Your task to perform on an android device: open wifi settings Image 0: 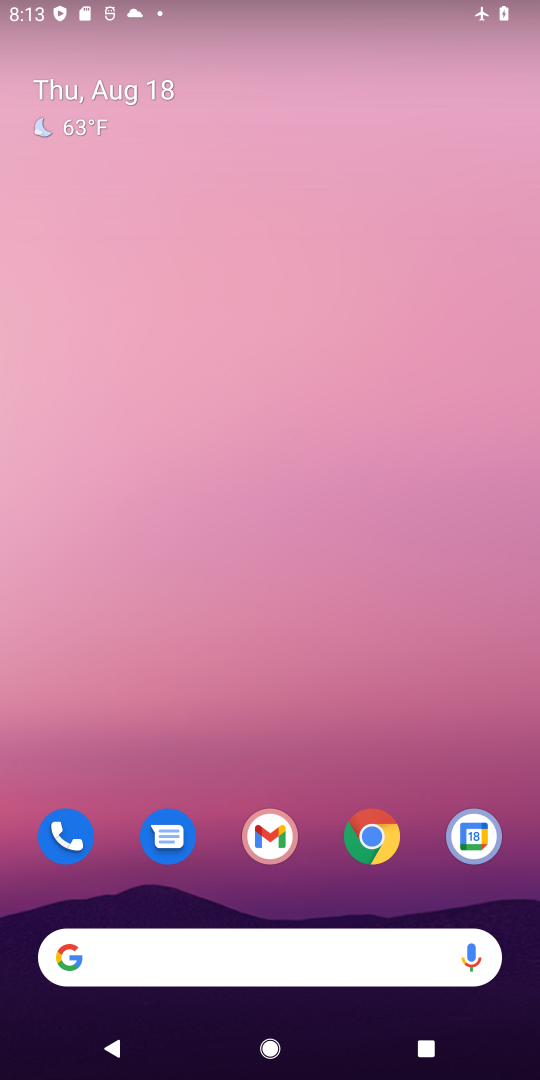
Step 0: drag from (359, 686) to (321, 0)
Your task to perform on an android device: open wifi settings Image 1: 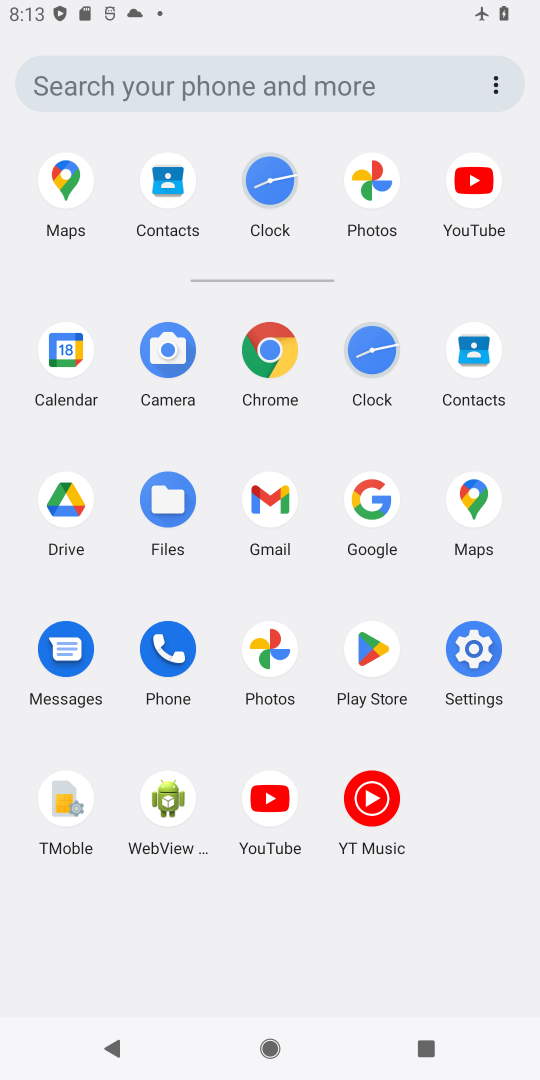
Step 1: click (483, 647)
Your task to perform on an android device: open wifi settings Image 2: 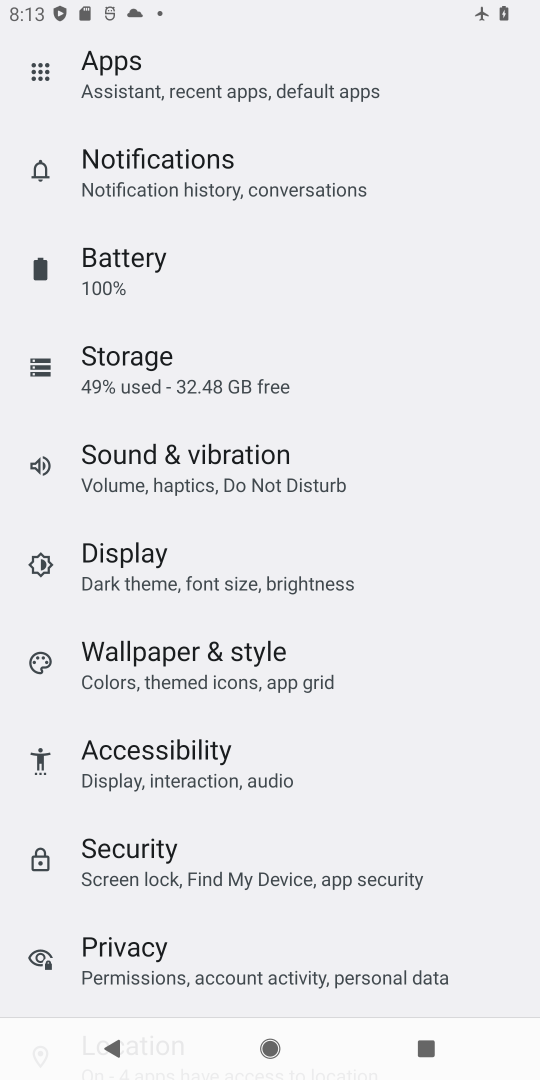
Step 2: drag from (221, 211) to (299, 835)
Your task to perform on an android device: open wifi settings Image 3: 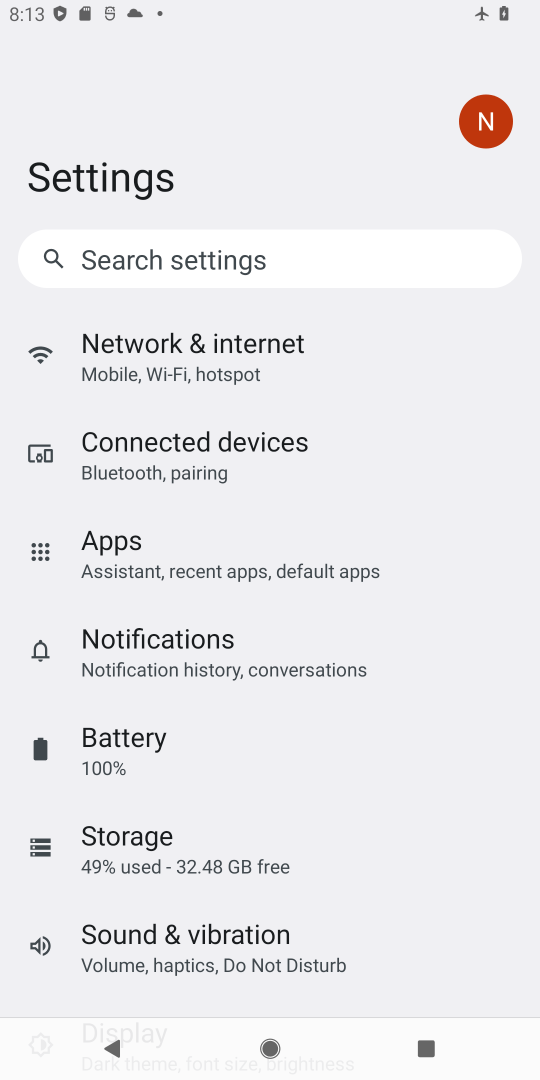
Step 3: click (296, 380)
Your task to perform on an android device: open wifi settings Image 4: 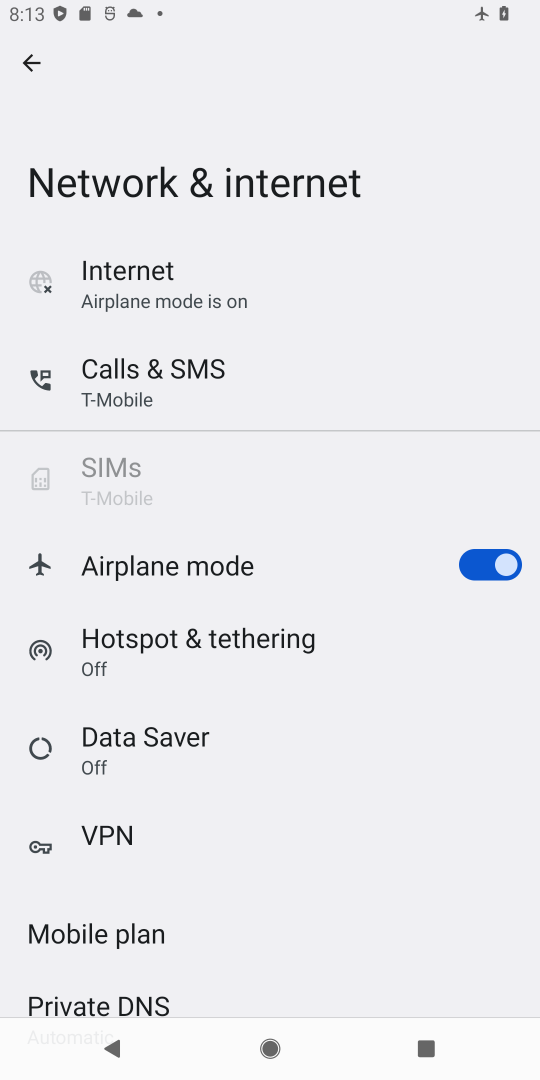
Step 4: click (159, 281)
Your task to perform on an android device: open wifi settings Image 5: 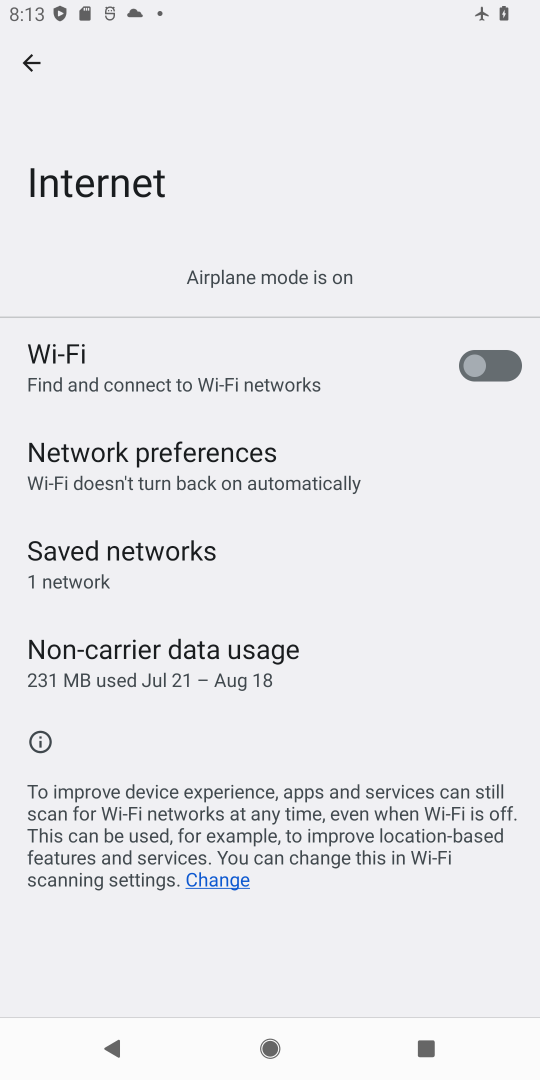
Step 5: click (146, 374)
Your task to perform on an android device: open wifi settings Image 6: 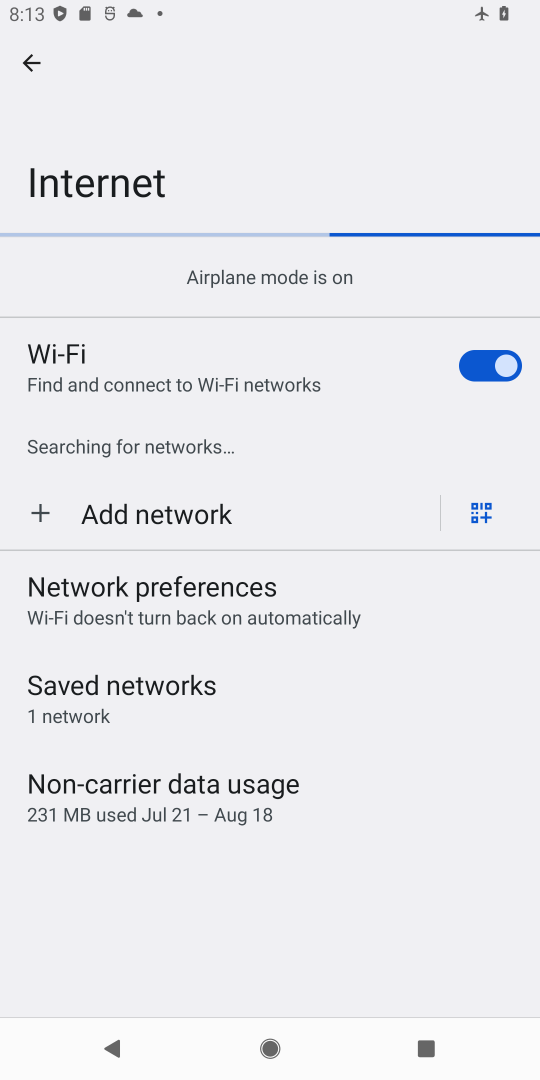
Step 6: click (146, 374)
Your task to perform on an android device: open wifi settings Image 7: 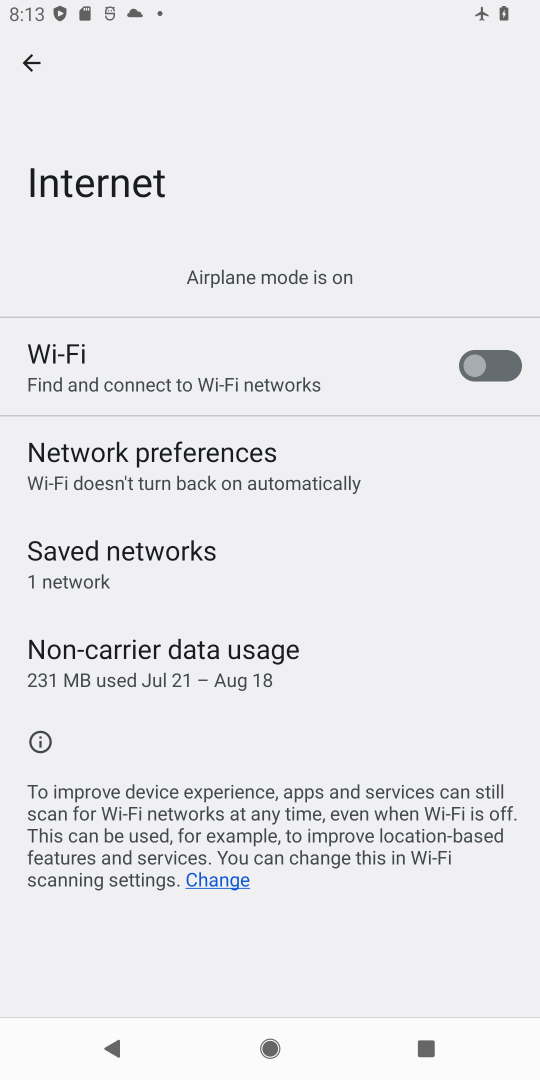
Step 7: click (146, 374)
Your task to perform on an android device: open wifi settings Image 8: 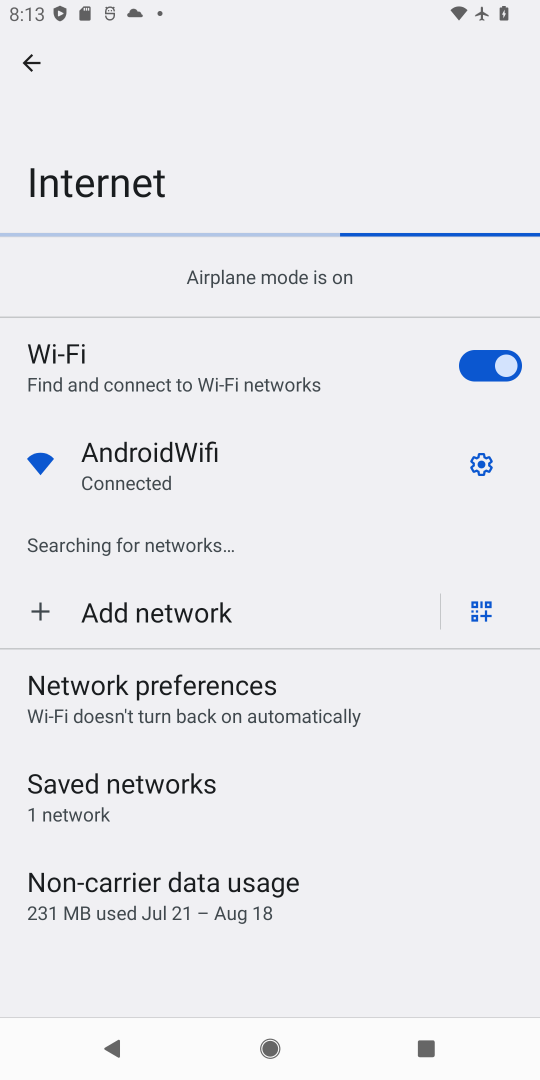
Step 8: click (476, 418)
Your task to perform on an android device: open wifi settings Image 9: 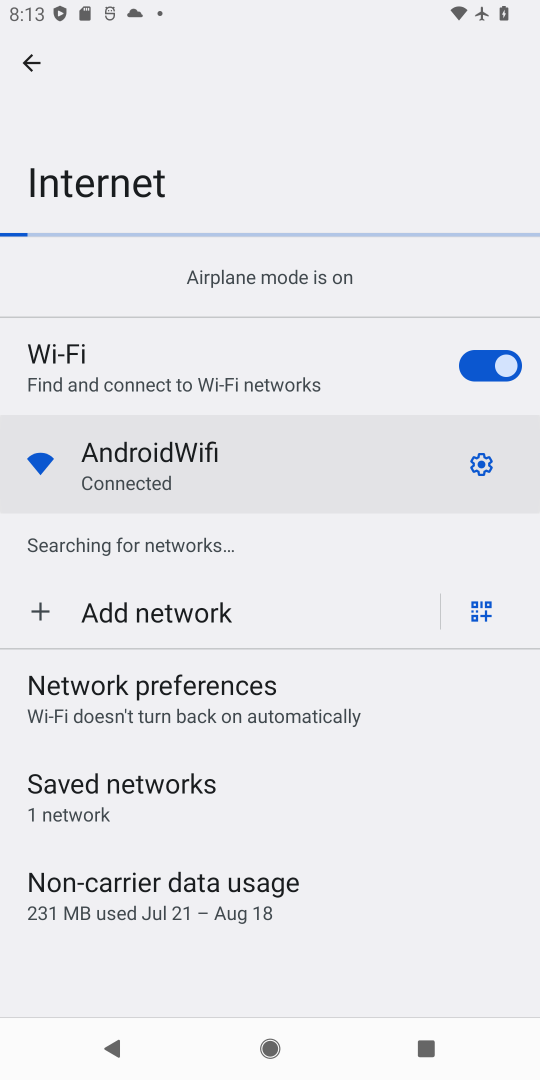
Step 9: click (485, 461)
Your task to perform on an android device: open wifi settings Image 10: 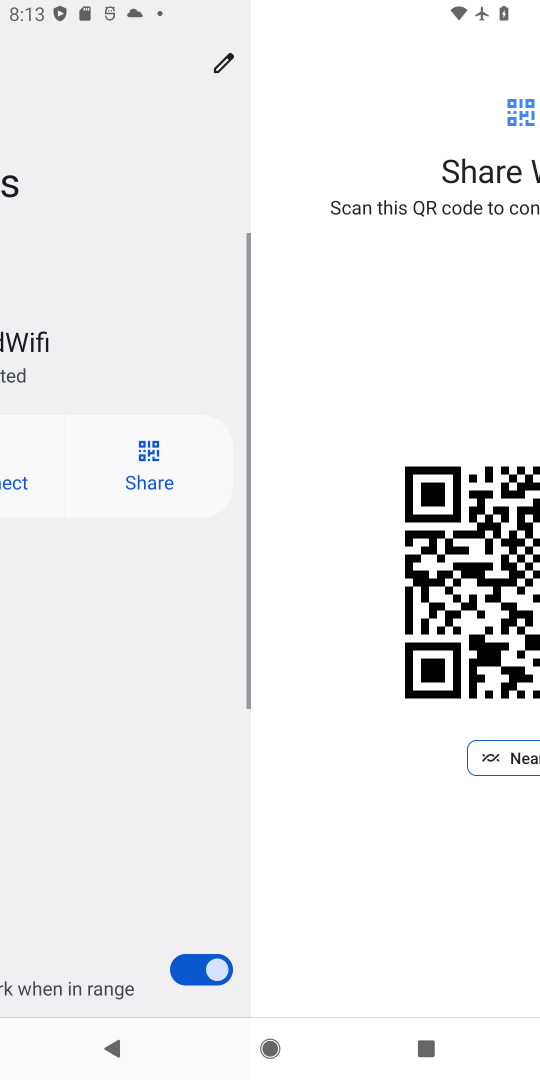
Step 10: task complete